Your task to perform on an android device: toggle pop-ups in chrome Image 0: 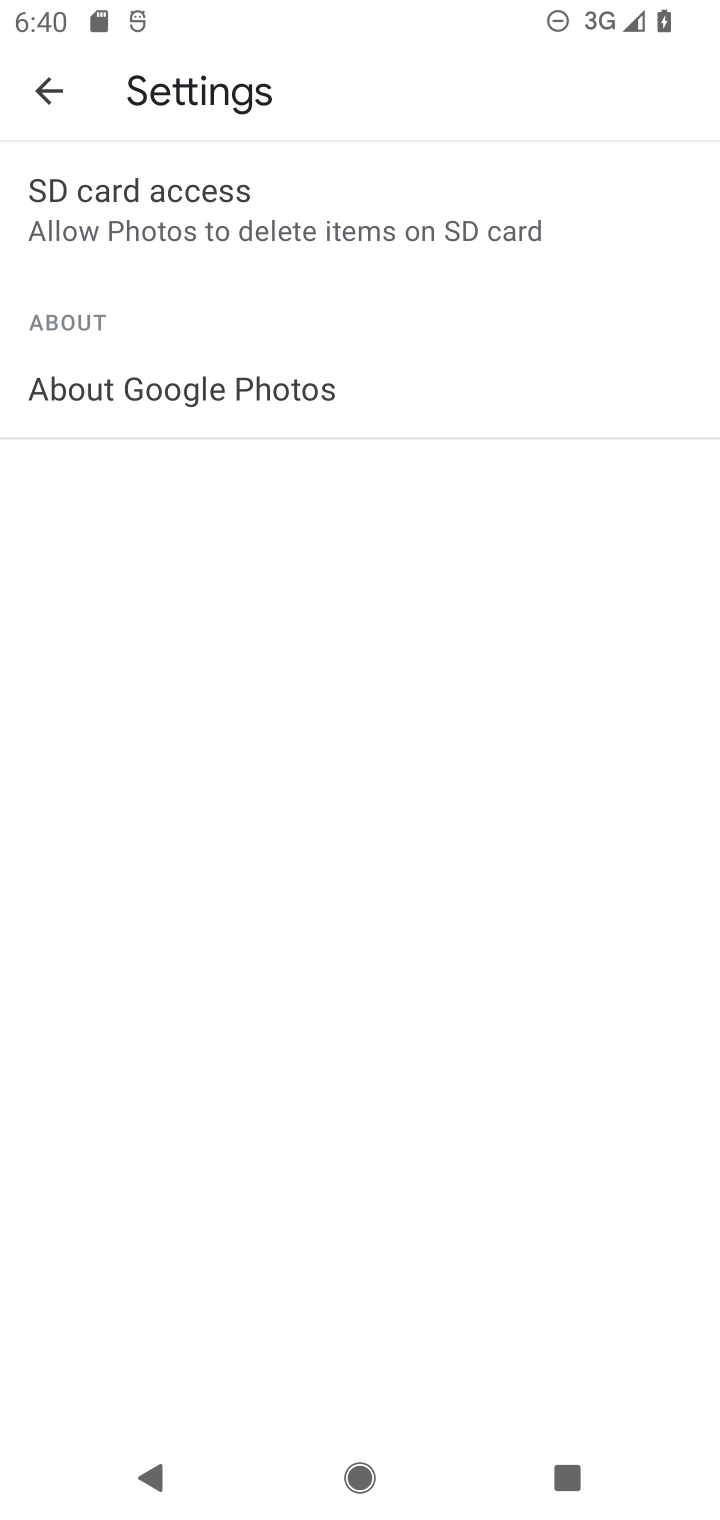
Step 0: press home button
Your task to perform on an android device: toggle pop-ups in chrome Image 1: 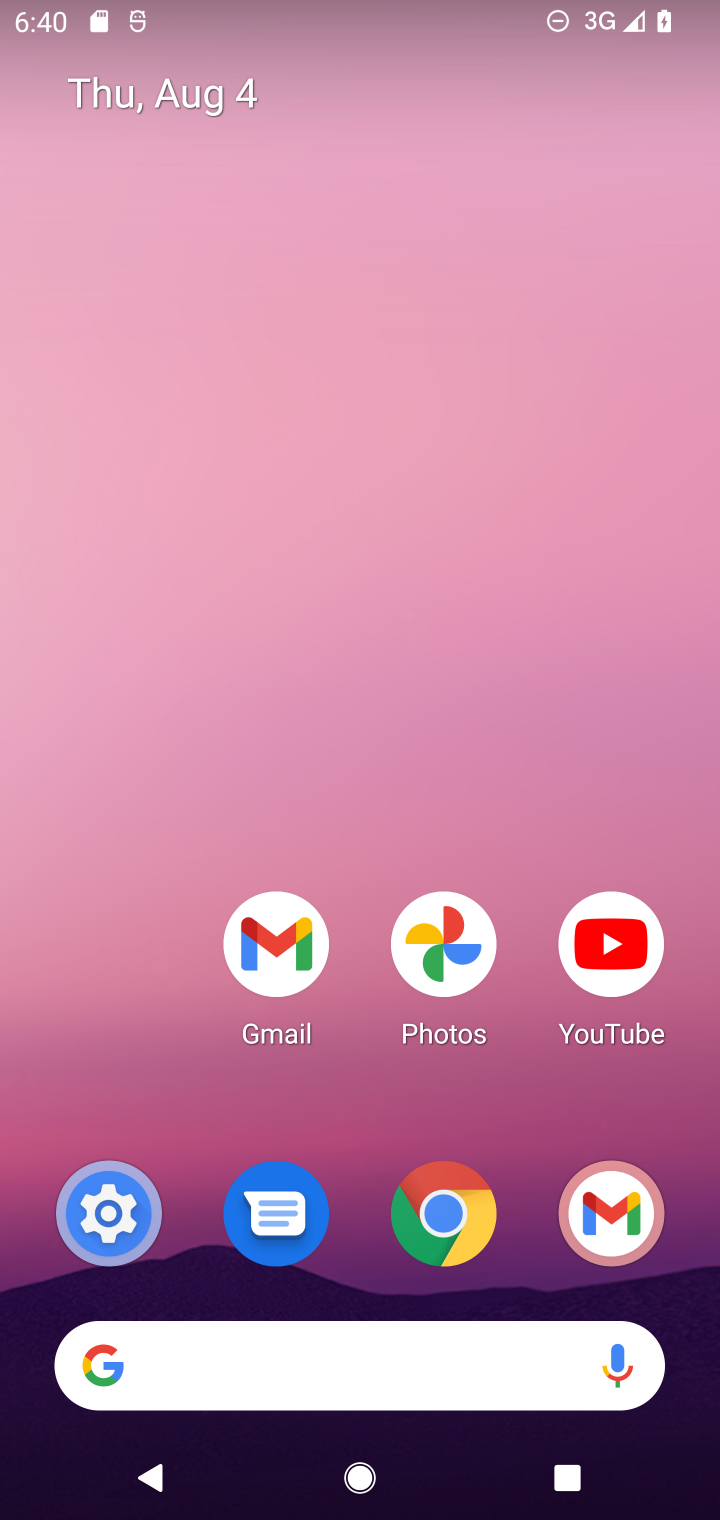
Step 1: drag from (169, 1105) to (104, 236)
Your task to perform on an android device: toggle pop-ups in chrome Image 2: 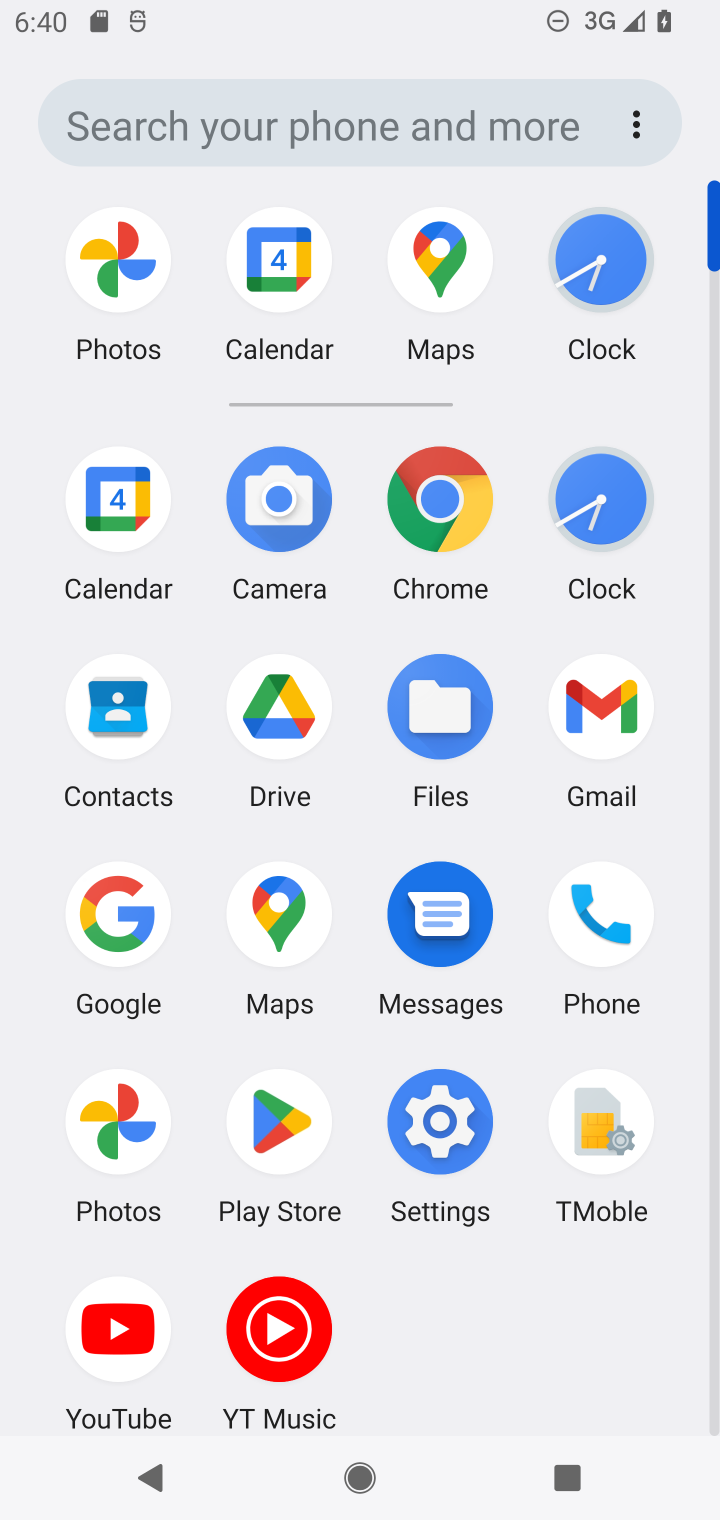
Step 2: click (458, 510)
Your task to perform on an android device: toggle pop-ups in chrome Image 3: 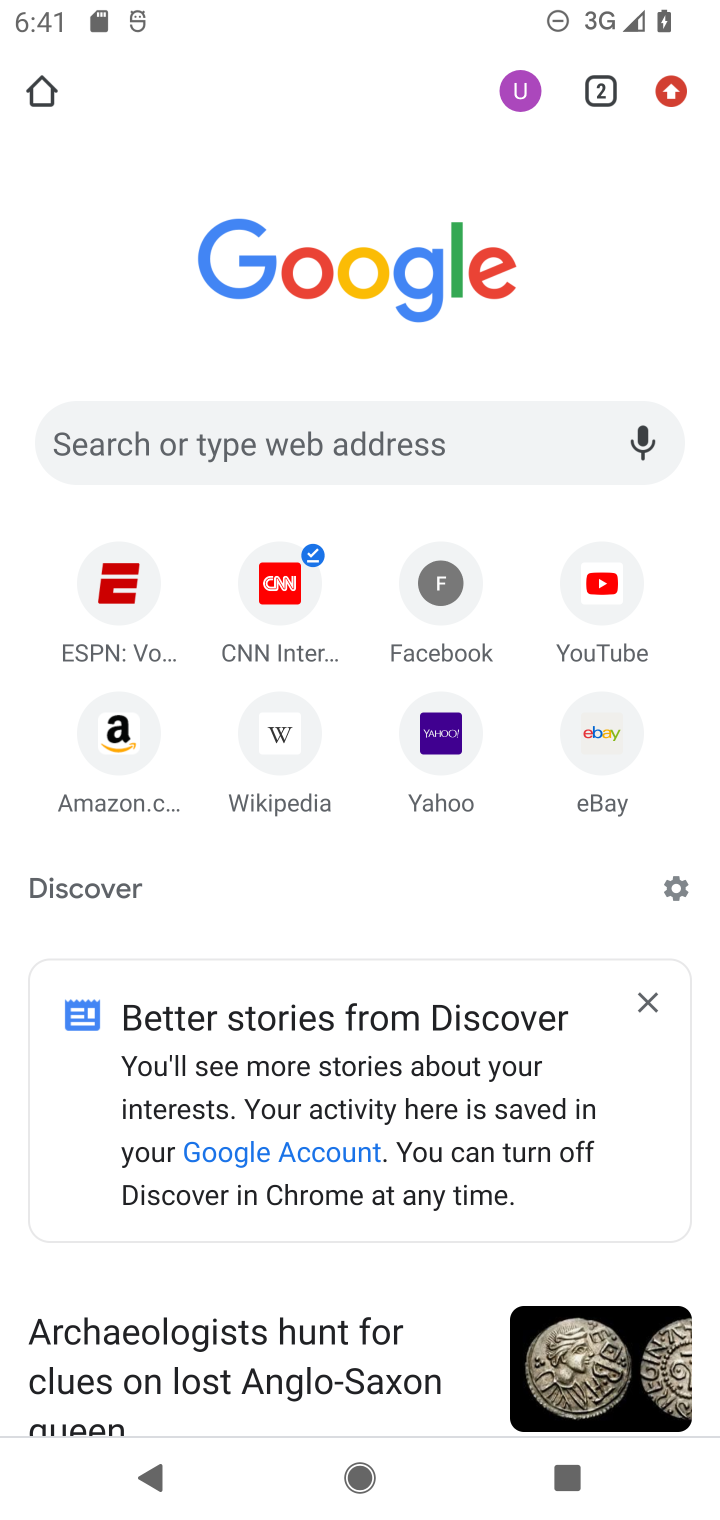
Step 3: click (672, 89)
Your task to perform on an android device: toggle pop-ups in chrome Image 4: 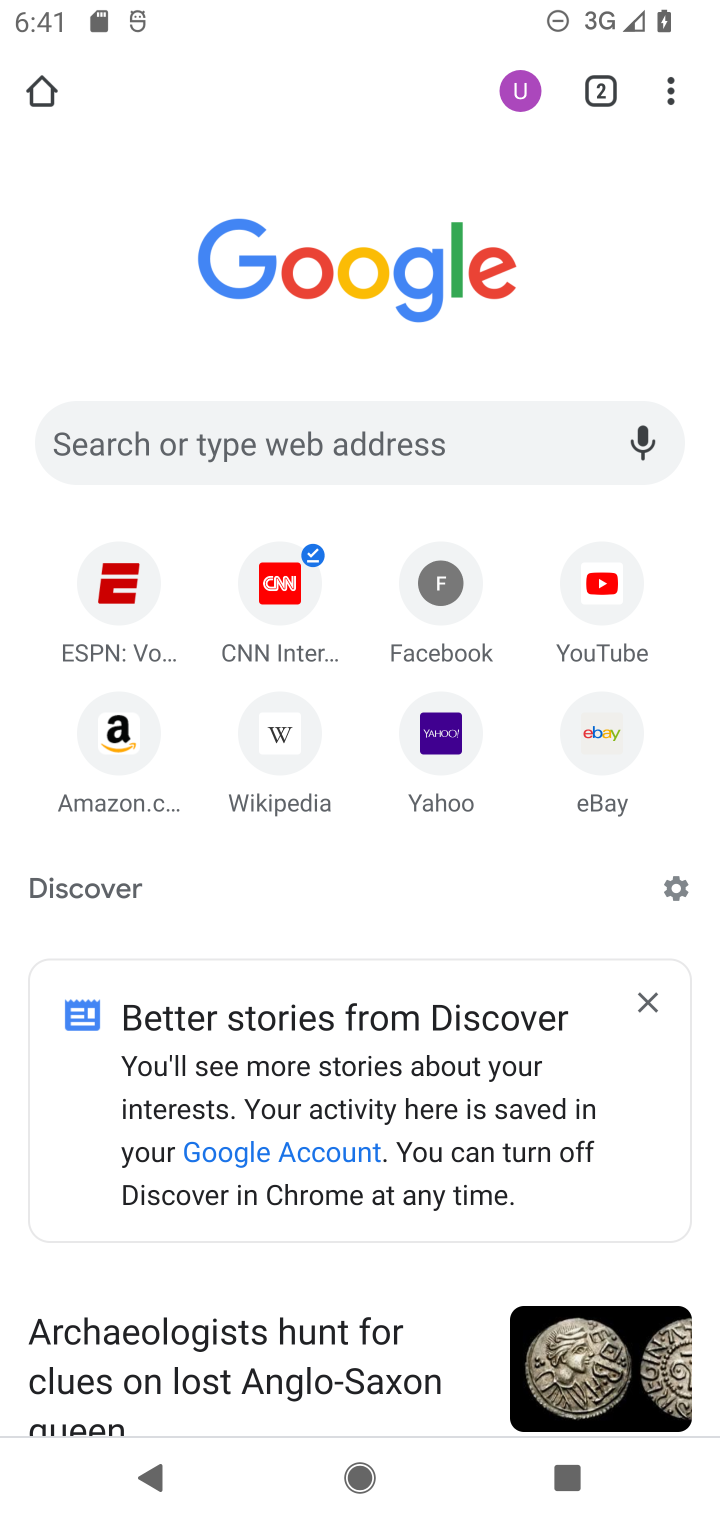
Step 4: click (666, 96)
Your task to perform on an android device: toggle pop-ups in chrome Image 5: 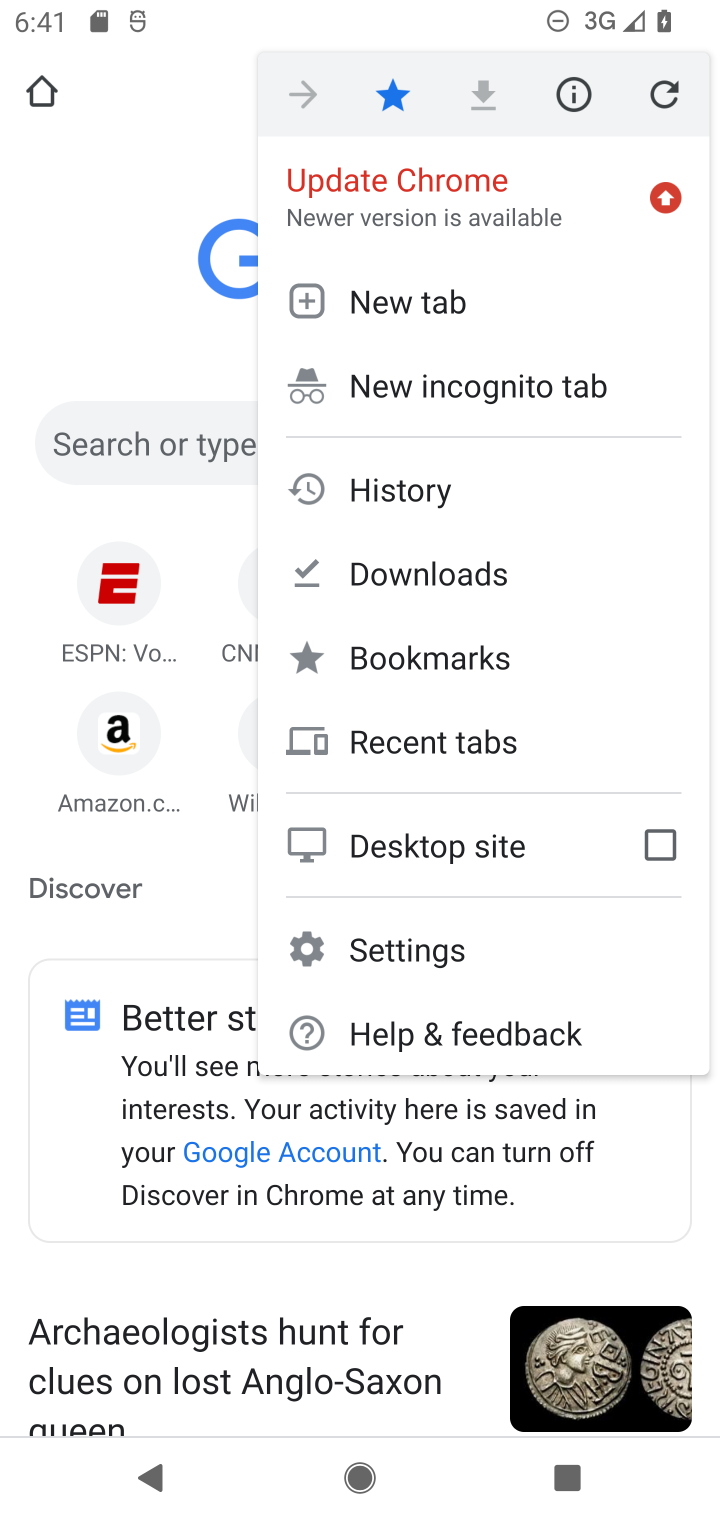
Step 5: click (413, 950)
Your task to perform on an android device: toggle pop-ups in chrome Image 6: 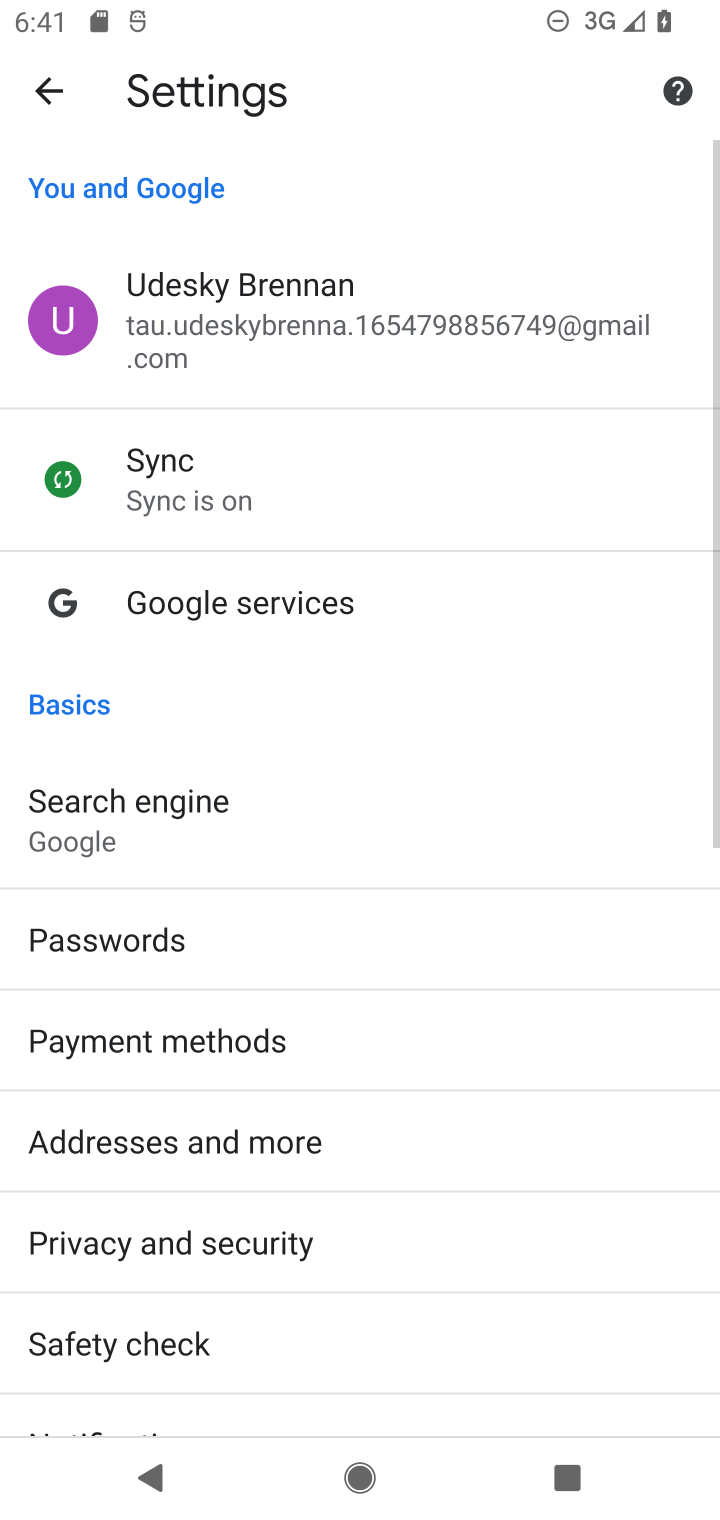
Step 6: drag from (517, 1029) to (523, 534)
Your task to perform on an android device: toggle pop-ups in chrome Image 7: 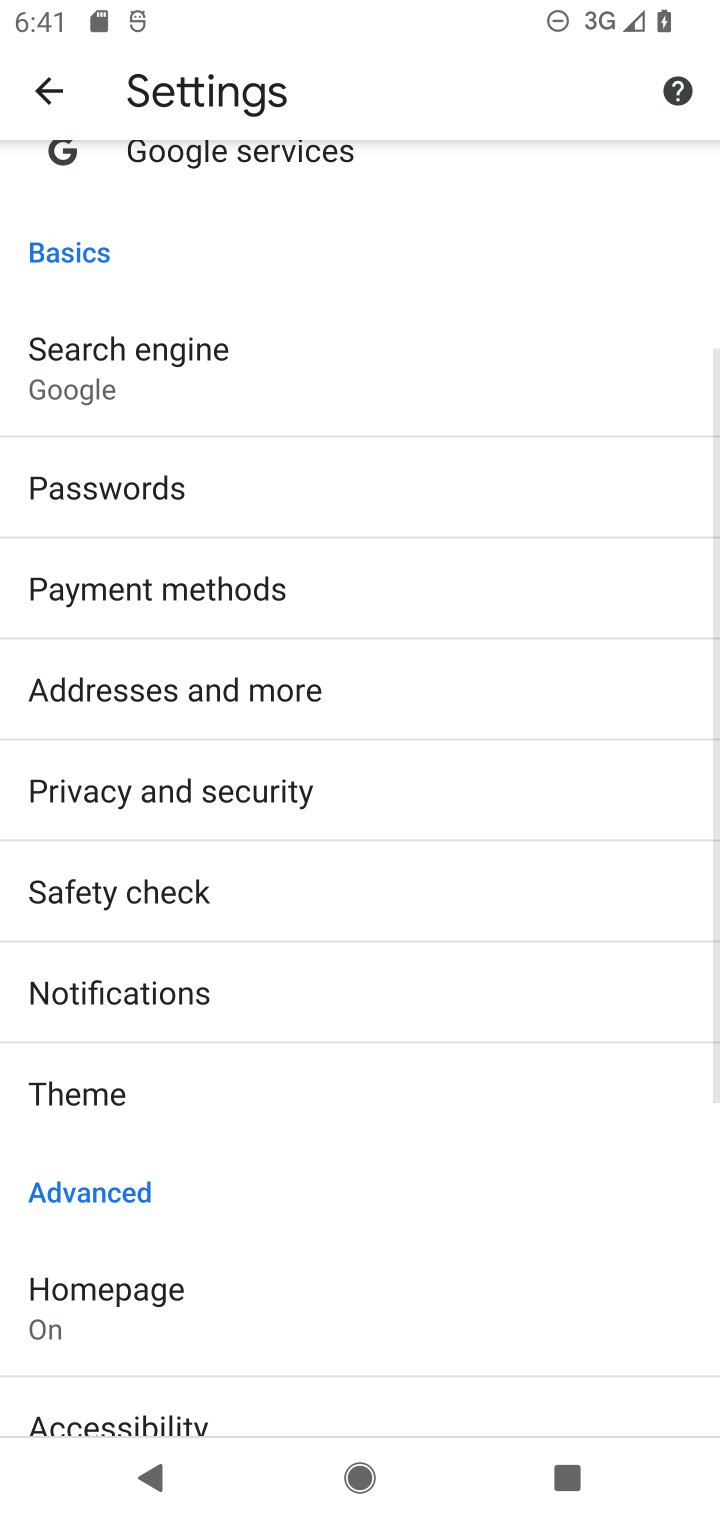
Step 7: drag from (504, 1021) to (479, 545)
Your task to perform on an android device: toggle pop-ups in chrome Image 8: 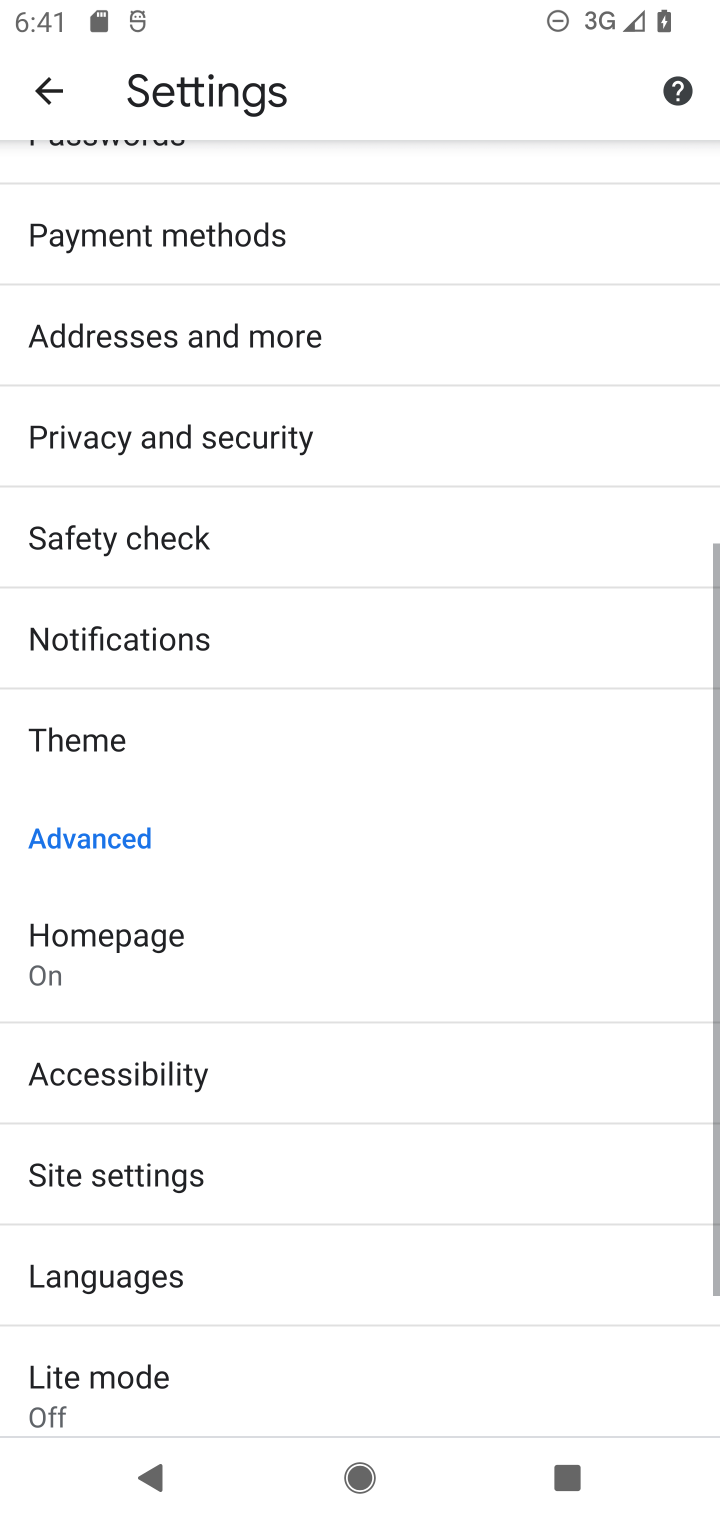
Step 8: drag from (505, 1034) to (507, 627)
Your task to perform on an android device: toggle pop-ups in chrome Image 9: 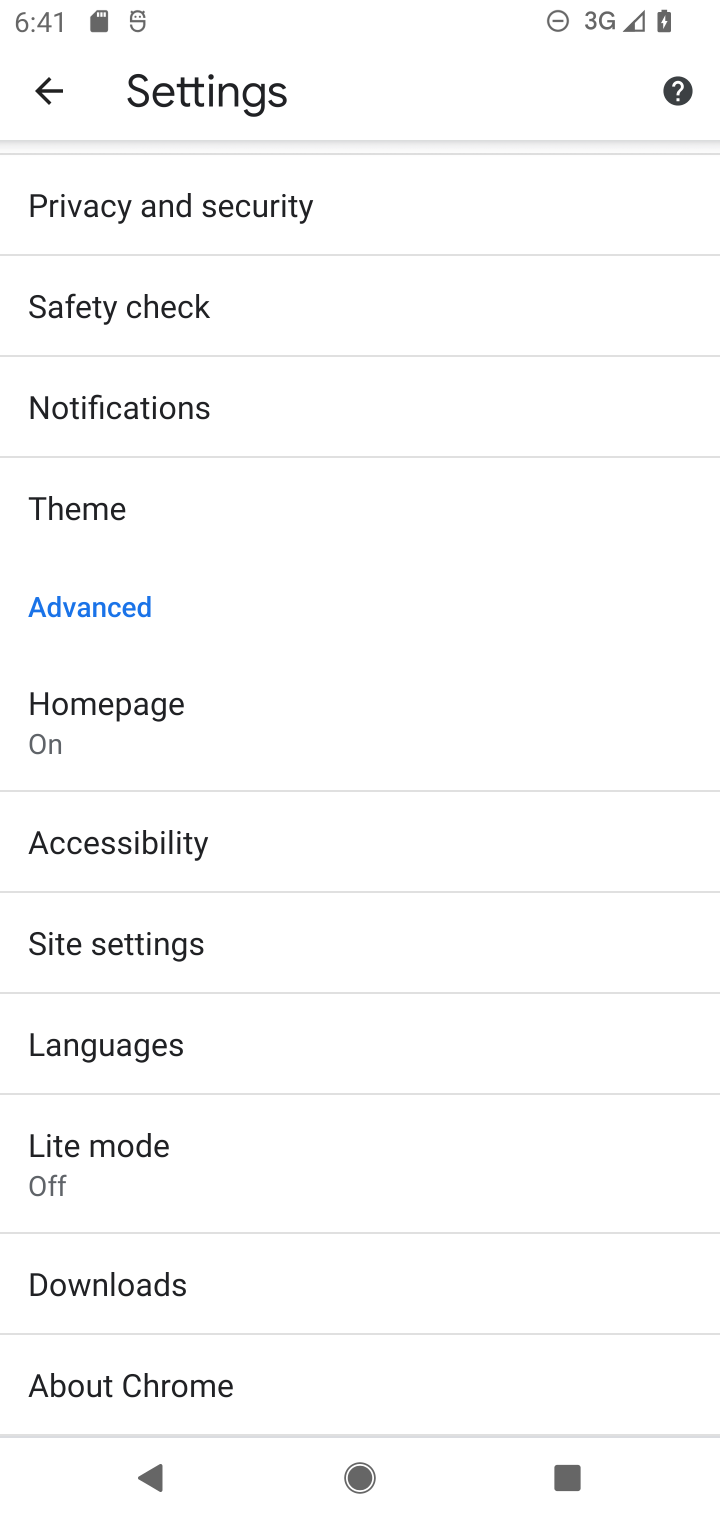
Step 9: drag from (463, 1122) to (425, 719)
Your task to perform on an android device: toggle pop-ups in chrome Image 10: 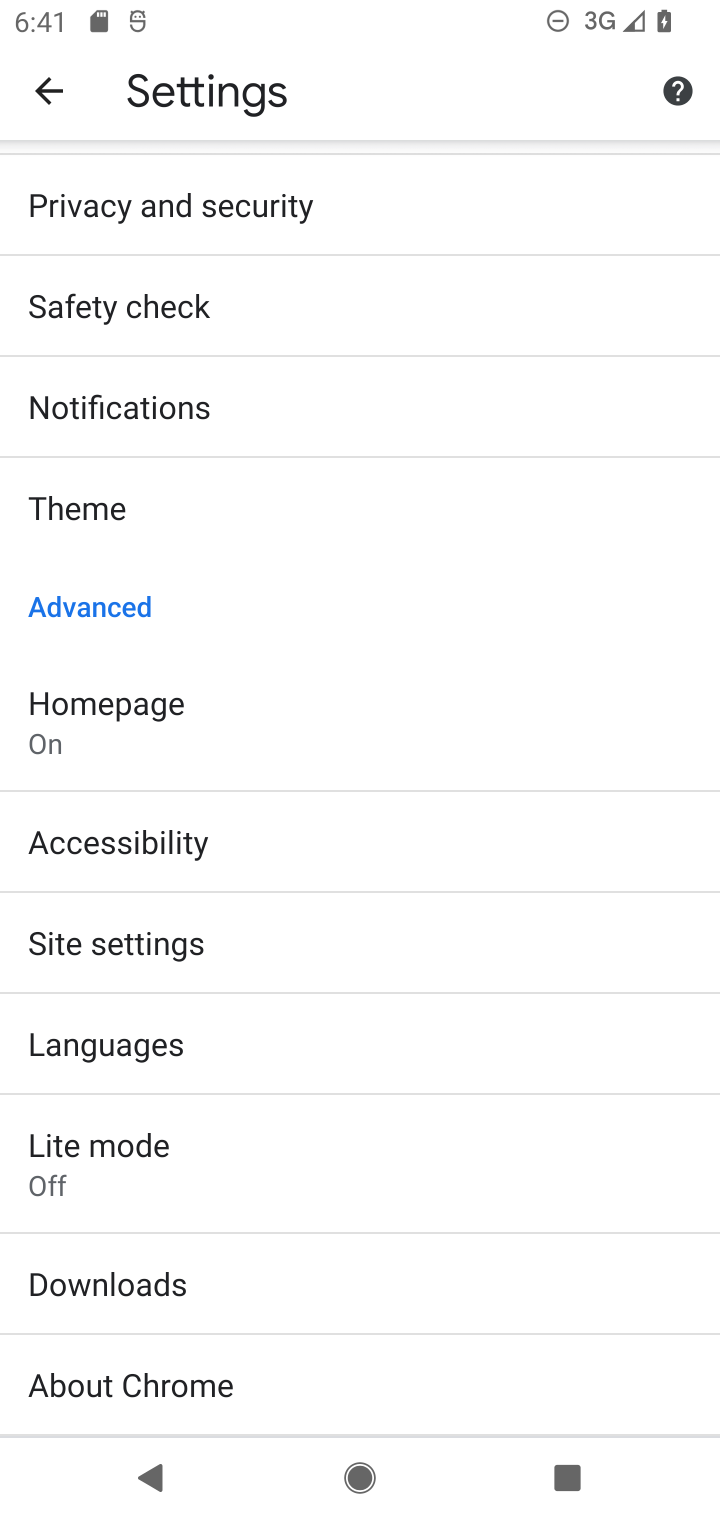
Step 10: click (311, 928)
Your task to perform on an android device: toggle pop-ups in chrome Image 11: 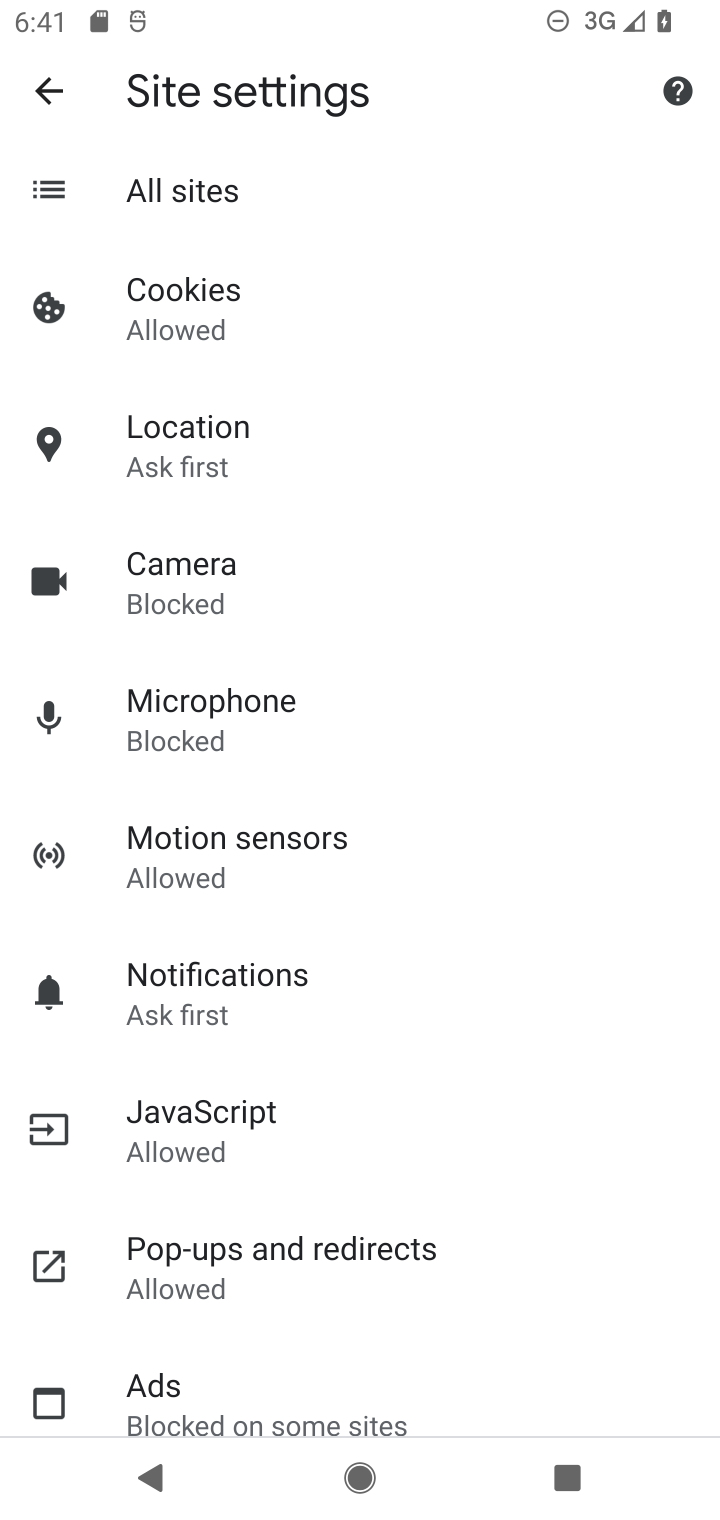
Step 11: drag from (588, 1136) to (590, 712)
Your task to perform on an android device: toggle pop-ups in chrome Image 12: 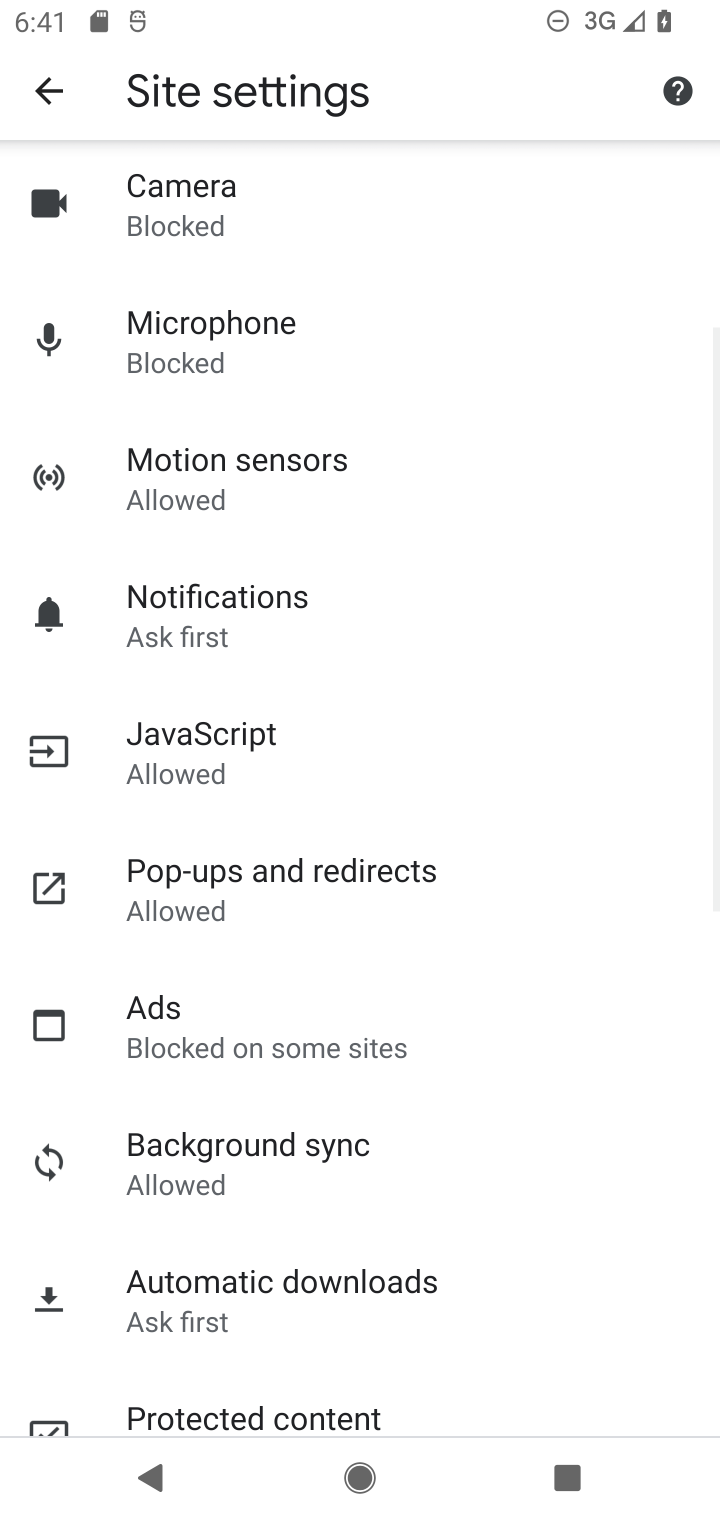
Step 12: drag from (553, 1158) to (563, 727)
Your task to perform on an android device: toggle pop-ups in chrome Image 13: 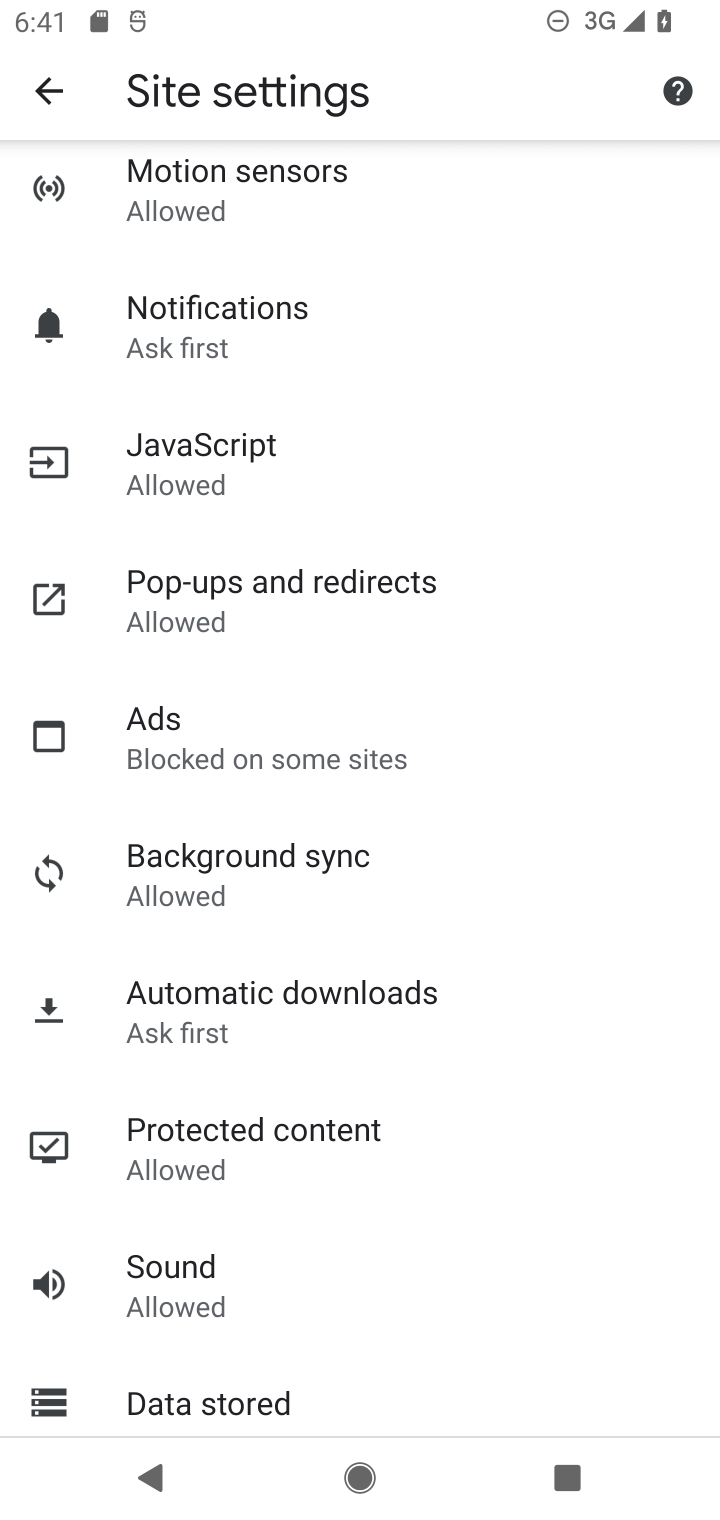
Step 13: click (326, 610)
Your task to perform on an android device: toggle pop-ups in chrome Image 14: 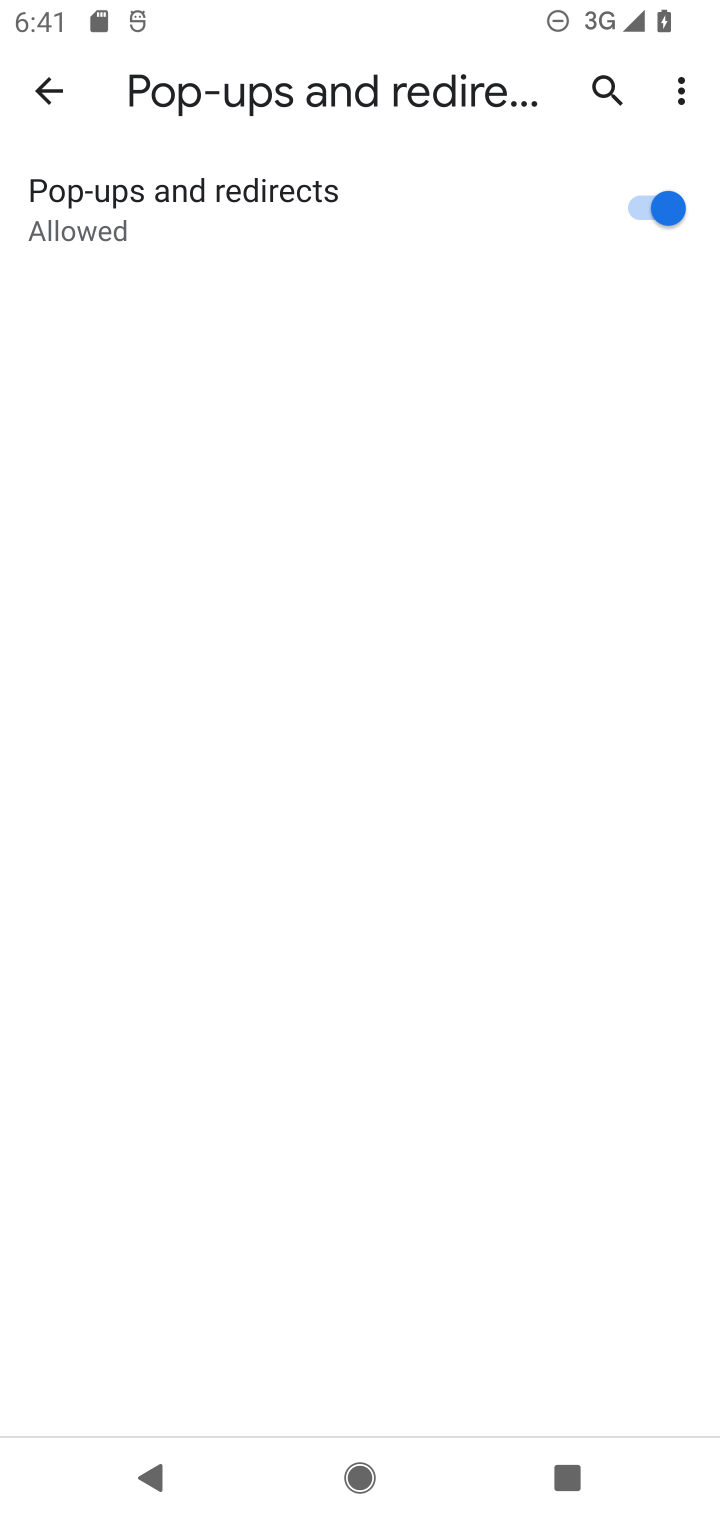
Step 14: click (665, 197)
Your task to perform on an android device: toggle pop-ups in chrome Image 15: 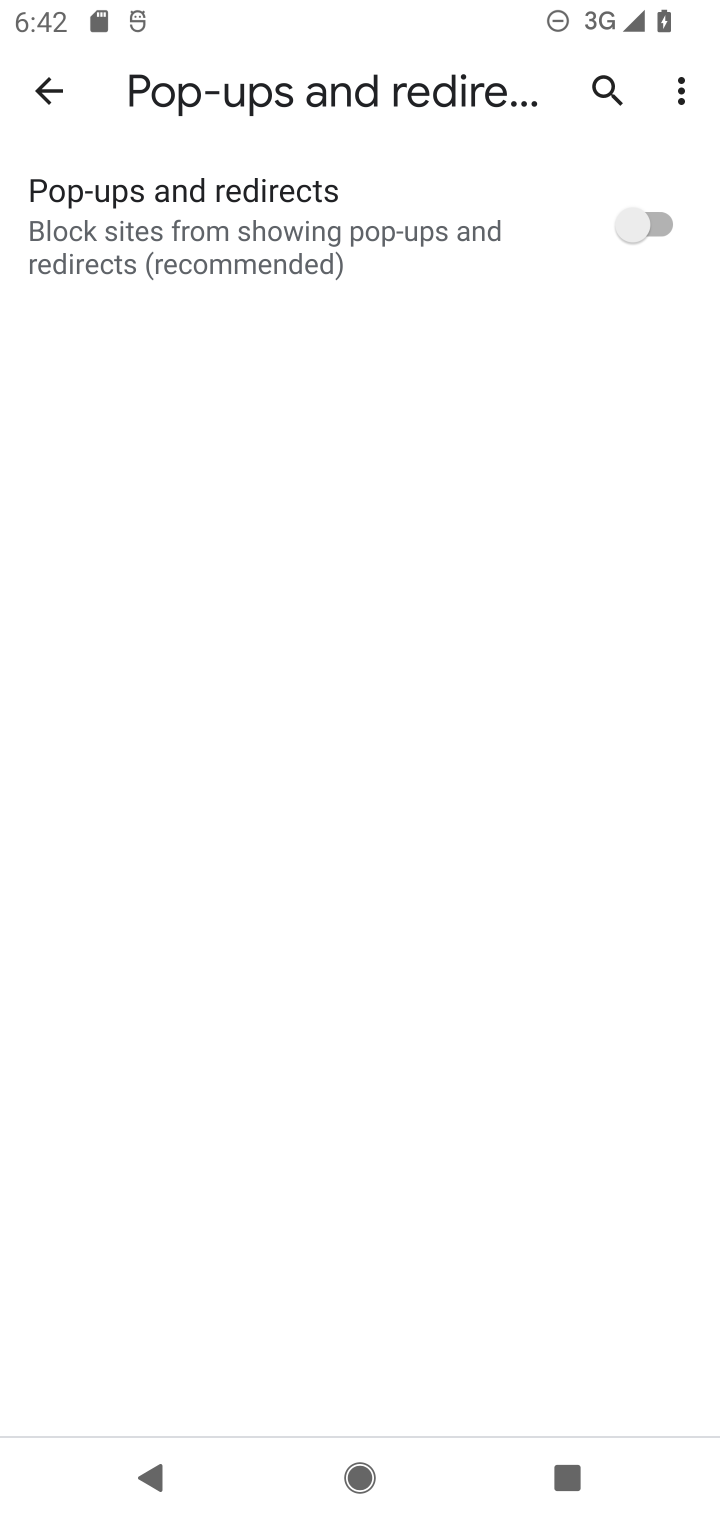
Step 15: task complete